Your task to perform on an android device: turn on bluetooth scan Image 0: 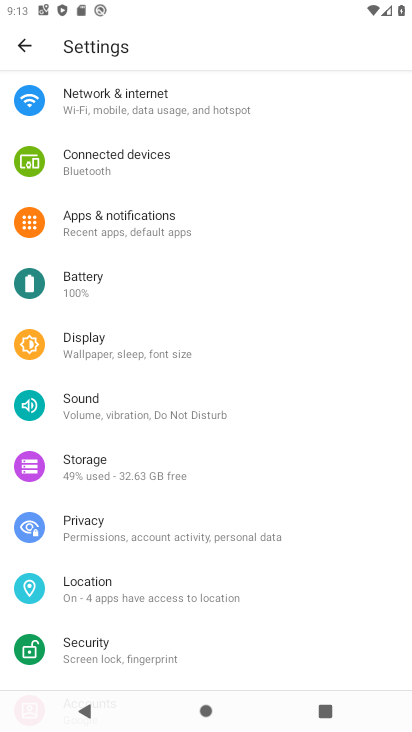
Step 0: drag from (182, 522) to (187, 334)
Your task to perform on an android device: turn on bluetooth scan Image 1: 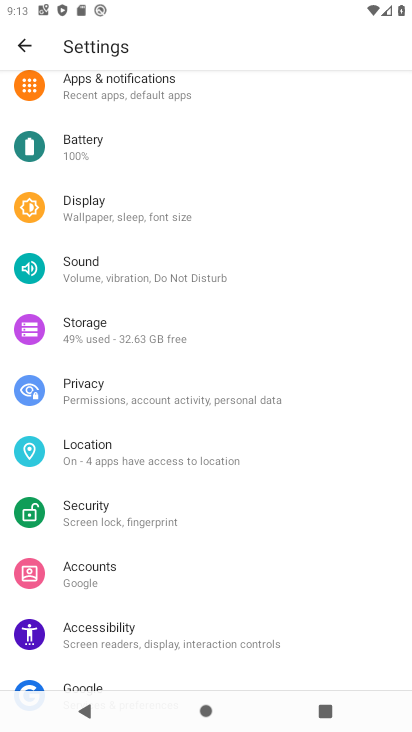
Step 1: click (140, 459)
Your task to perform on an android device: turn on bluetooth scan Image 2: 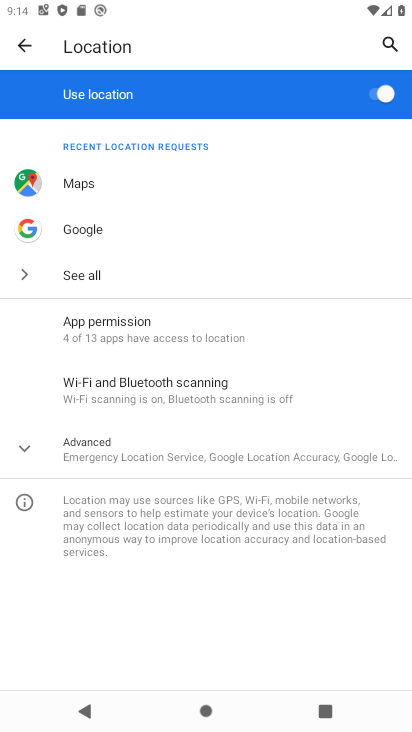
Step 2: click (108, 448)
Your task to perform on an android device: turn on bluetooth scan Image 3: 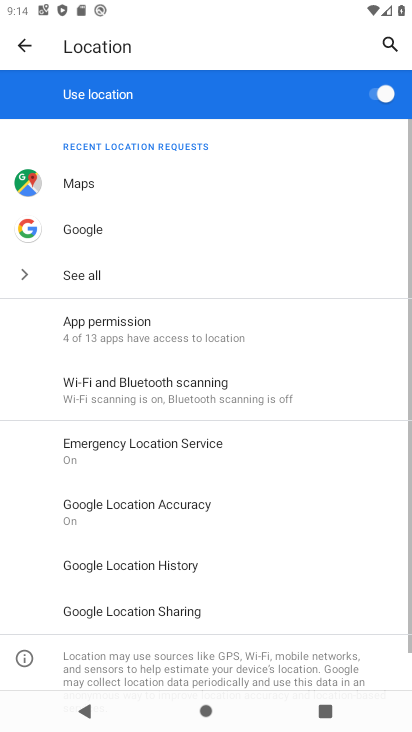
Step 3: click (122, 400)
Your task to perform on an android device: turn on bluetooth scan Image 4: 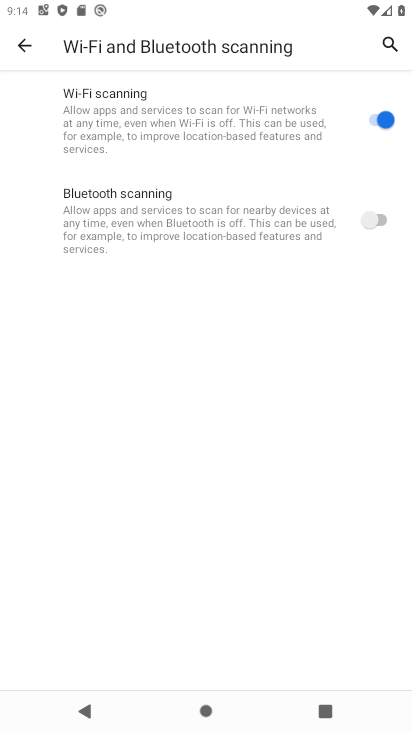
Step 4: click (368, 226)
Your task to perform on an android device: turn on bluetooth scan Image 5: 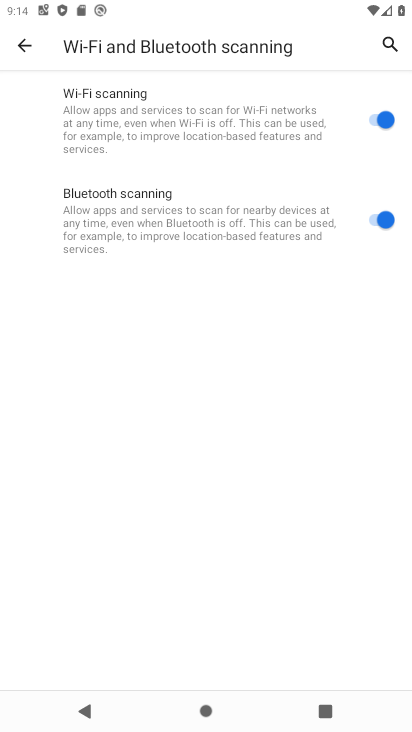
Step 5: task complete